Your task to perform on an android device: Search for Mexican restaurants on Maps Image 0: 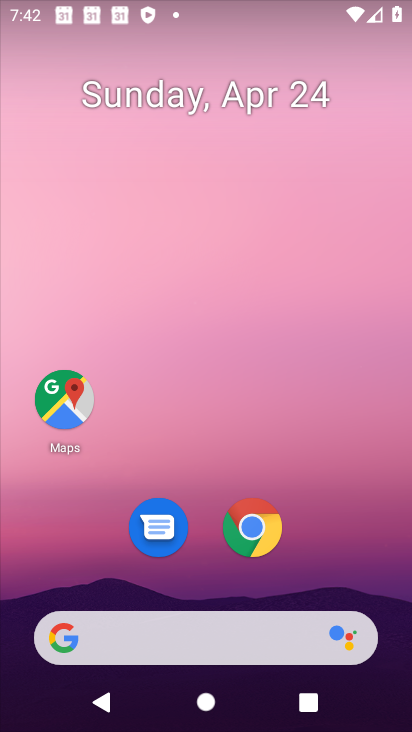
Step 0: drag from (373, 587) to (295, 34)
Your task to perform on an android device: Search for Mexican restaurants on Maps Image 1: 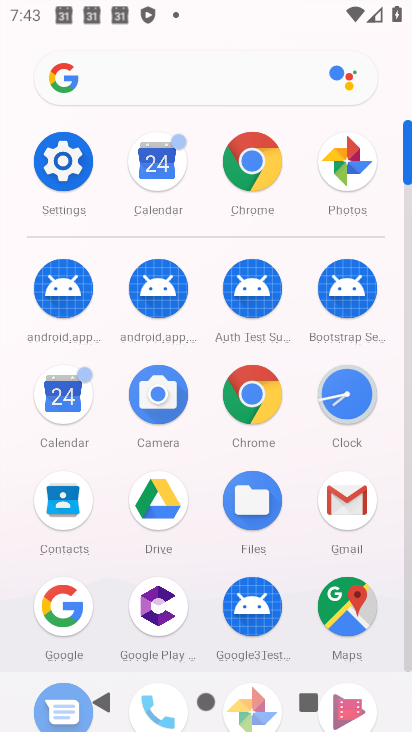
Step 1: click (347, 603)
Your task to perform on an android device: Search for Mexican restaurants on Maps Image 2: 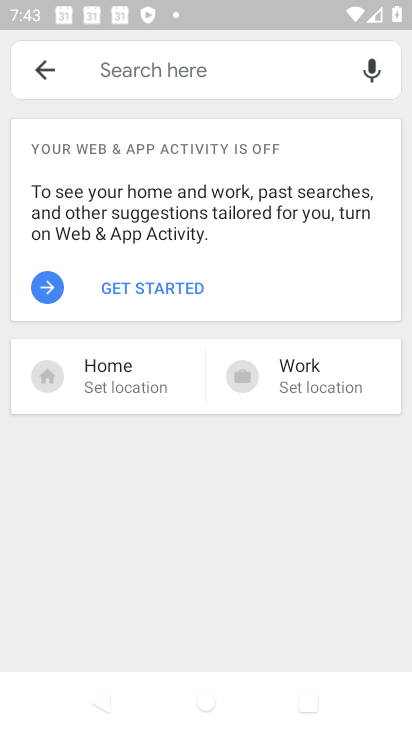
Step 2: click (157, 307)
Your task to perform on an android device: Search for Mexican restaurants on Maps Image 3: 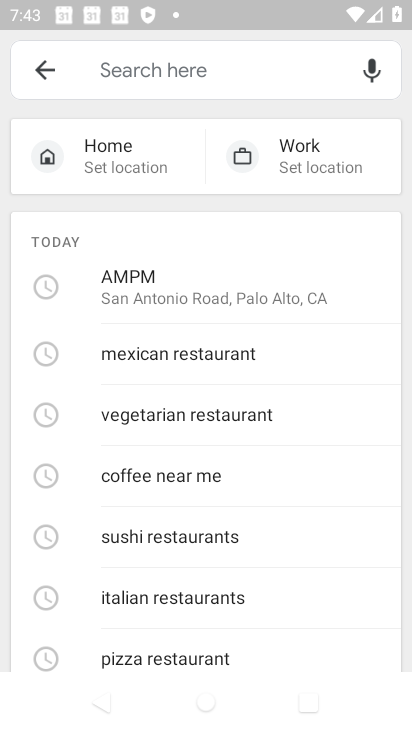
Step 3: click (200, 359)
Your task to perform on an android device: Search for Mexican restaurants on Maps Image 4: 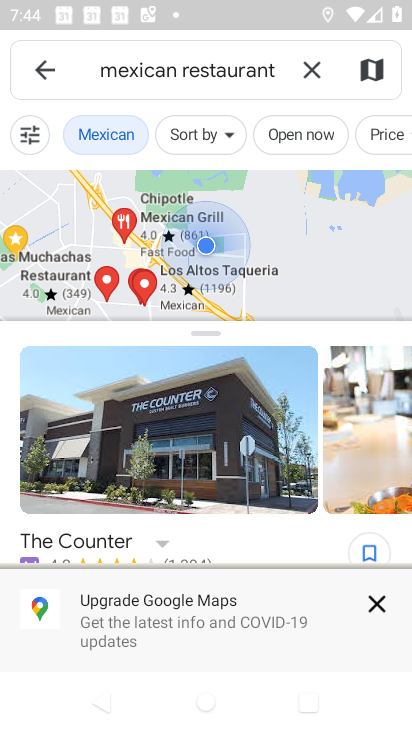
Step 4: task complete